Your task to perform on an android device: toggle improve location accuracy Image 0: 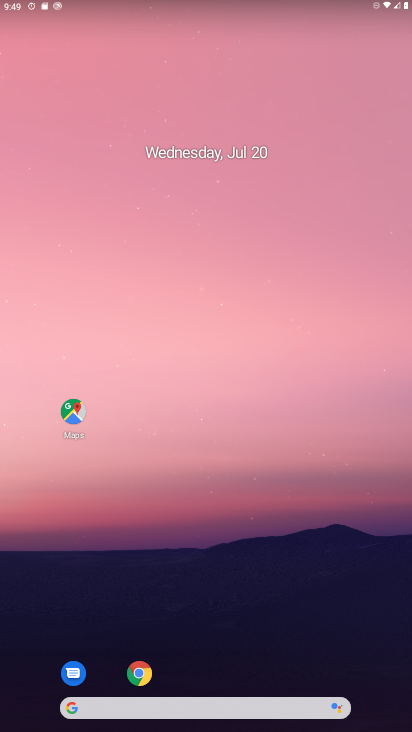
Step 0: drag from (352, 651) to (163, 9)
Your task to perform on an android device: toggle improve location accuracy Image 1: 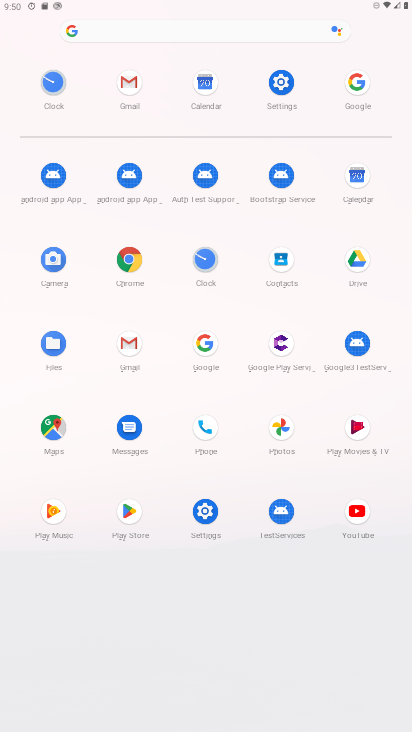
Step 1: click (206, 510)
Your task to perform on an android device: toggle improve location accuracy Image 2: 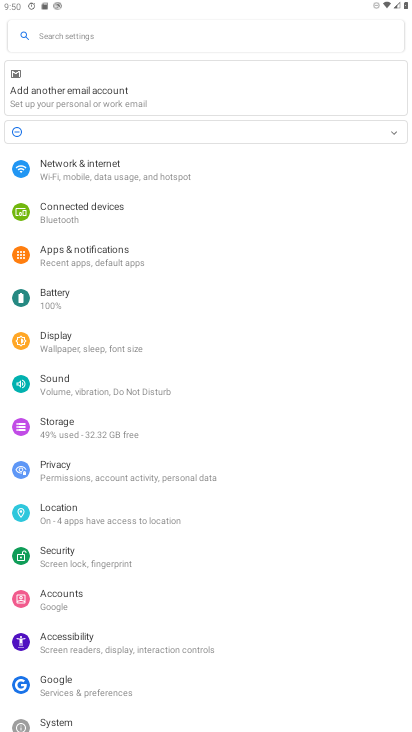
Step 2: click (77, 503)
Your task to perform on an android device: toggle improve location accuracy Image 3: 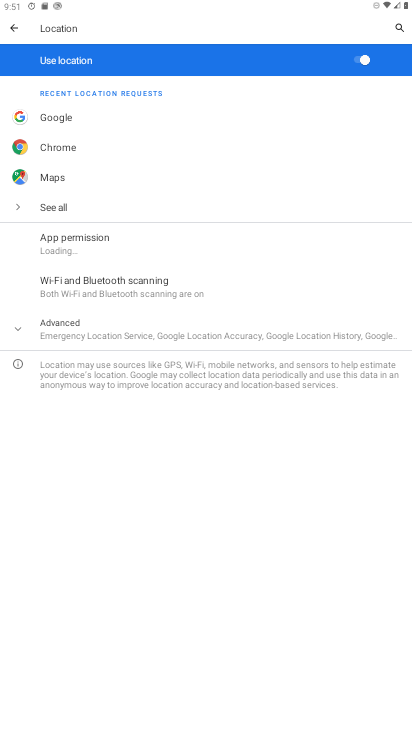
Step 3: click (81, 325)
Your task to perform on an android device: toggle improve location accuracy Image 4: 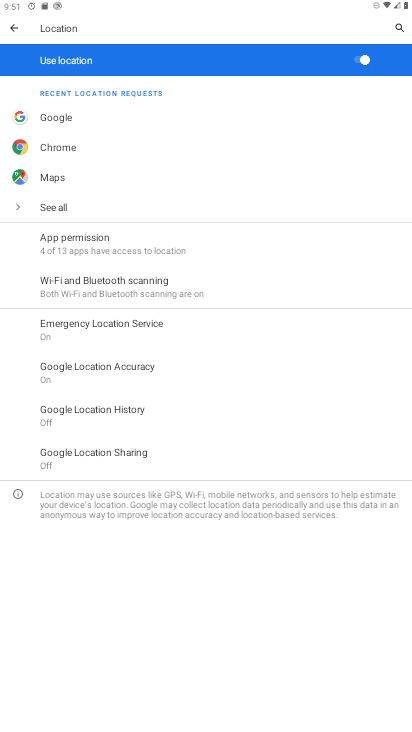
Step 4: click (99, 374)
Your task to perform on an android device: toggle improve location accuracy Image 5: 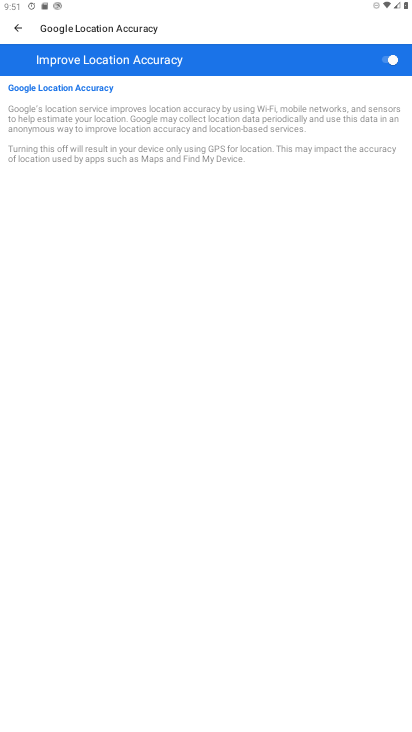
Step 5: click (343, 63)
Your task to perform on an android device: toggle improve location accuracy Image 6: 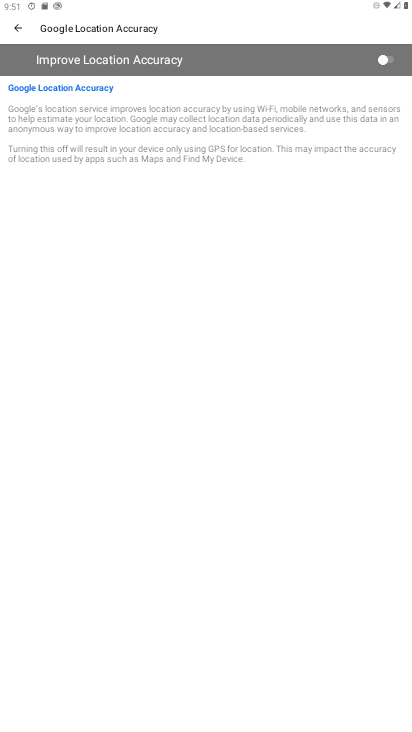
Step 6: task complete